Your task to perform on an android device: turn off location history Image 0: 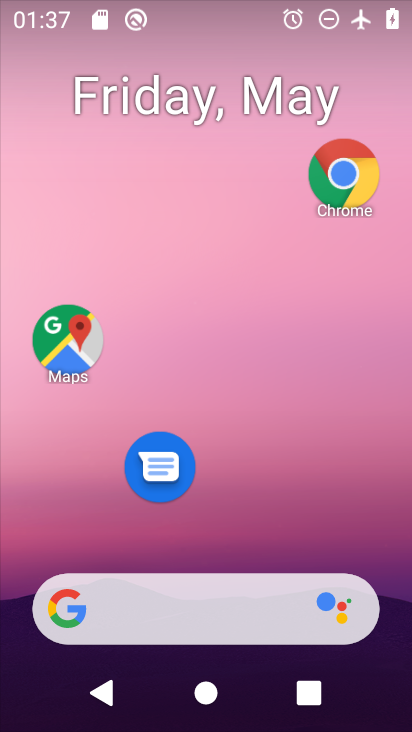
Step 0: drag from (251, 529) to (239, 183)
Your task to perform on an android device: turn off location history Image 1: 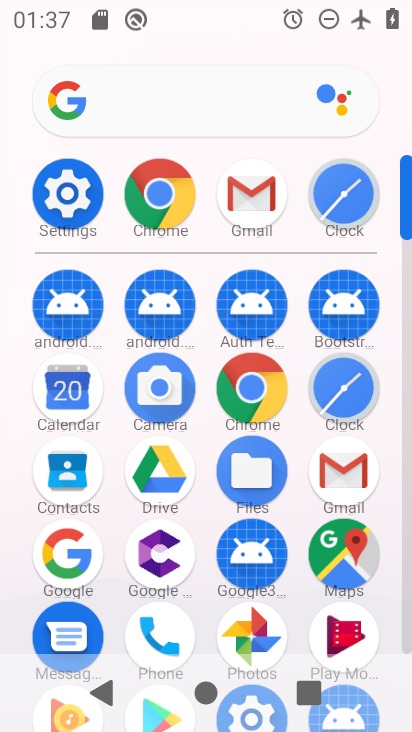
Step 1: click (75, 184)
Your task to perform on an android device: turn off location history Image 2: 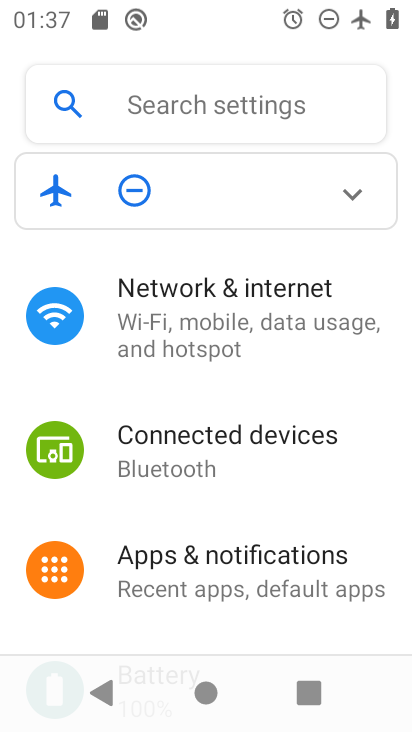
Step 2: drag from (242, 558) to (275, 220)
Your task to perform on an android device: turn off location history Image 3: 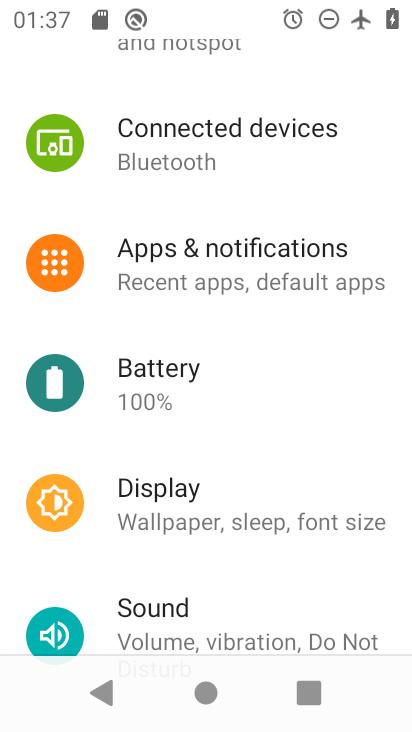
Step 3: drag from (187, 563) to (230, 207)
Your task to perform on an android device: turn off location history Image 4: 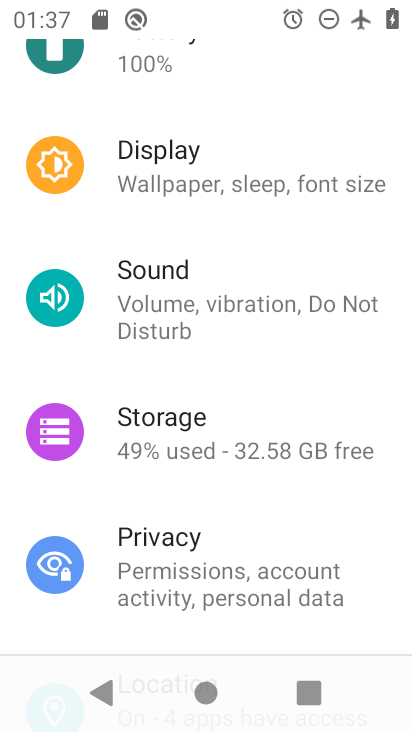
Step 4: drag from (155, 561) to (220, 304)
Your task to perform on an android device: turn off location history Image 5: 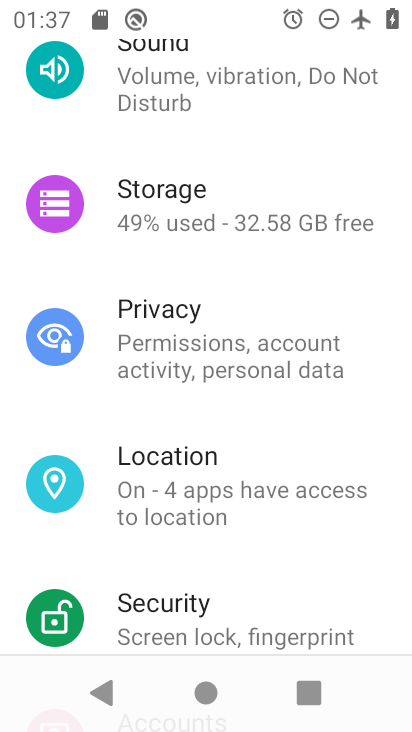
Step 5: click (196, 521)
Your task to perform on an android device: turn off location history Image 6: 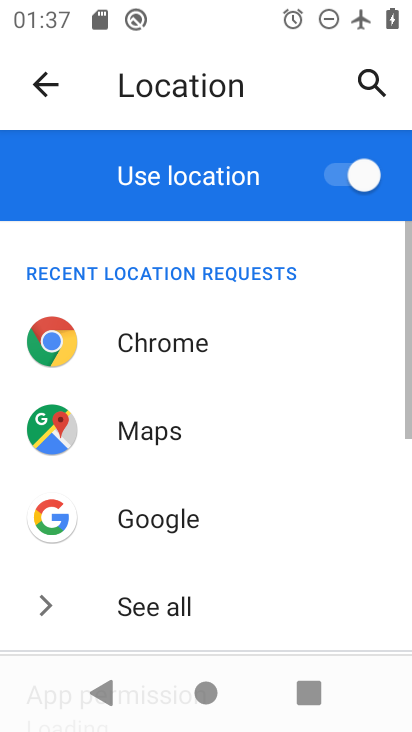
Step 6: drag from (244, 600) to (323, 229)
Your task to perform on an android device: turn off location history Image 7: 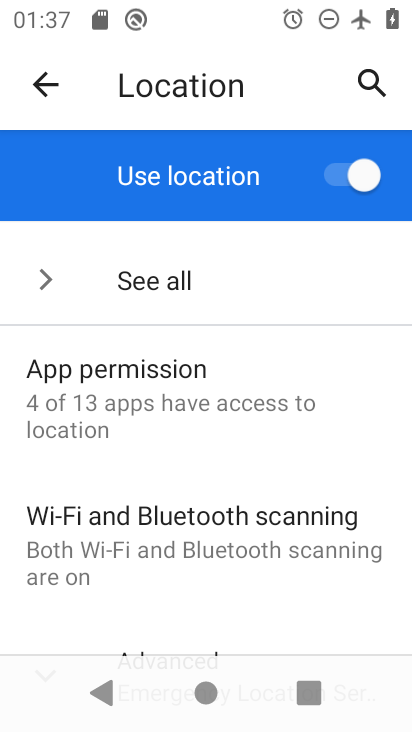
Step 7: drag from (272, 531) to (247, 245)
Your task to perform on an android device: turn off location history Image 8: 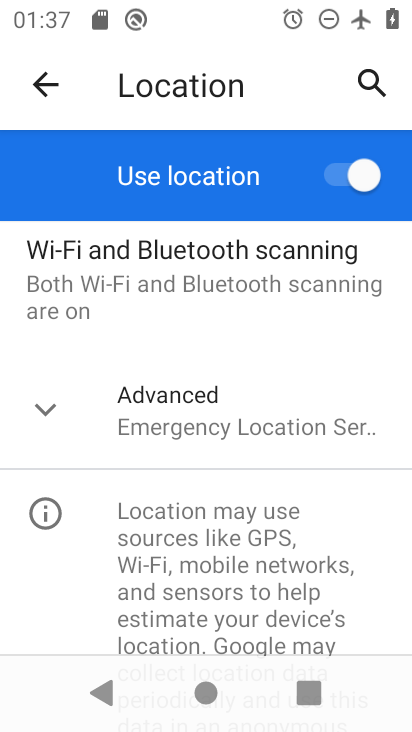
Step 8: click (227, 410)
Your task to perform on an android device: turn off location history Image 9: 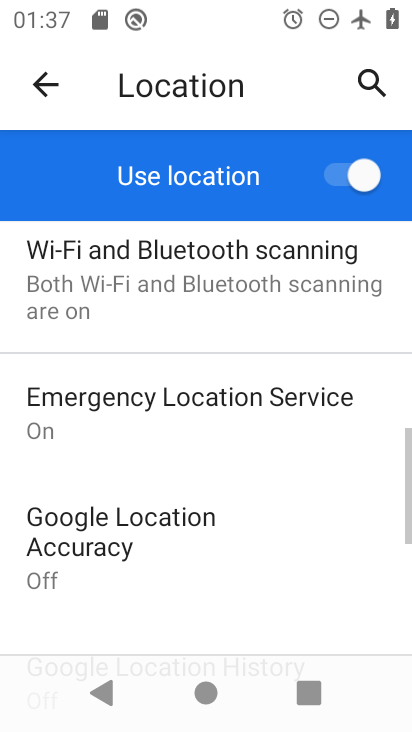
Step 9: click (167, 583)
Your task to perform on an android device: turn off location history Image 10: 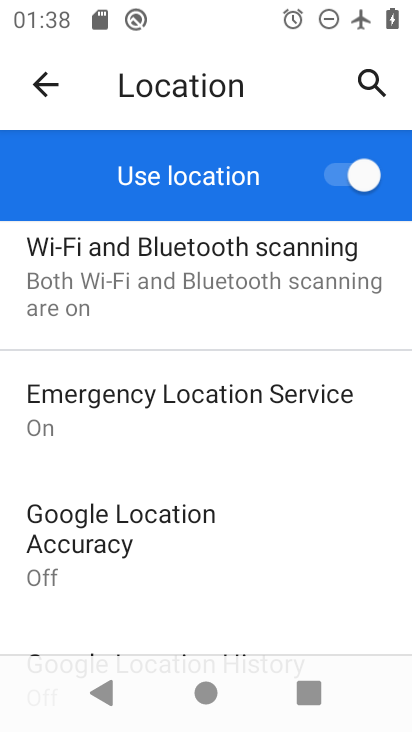
Step 10: task complete